Your task to perform on an android device: check android version Image 0: 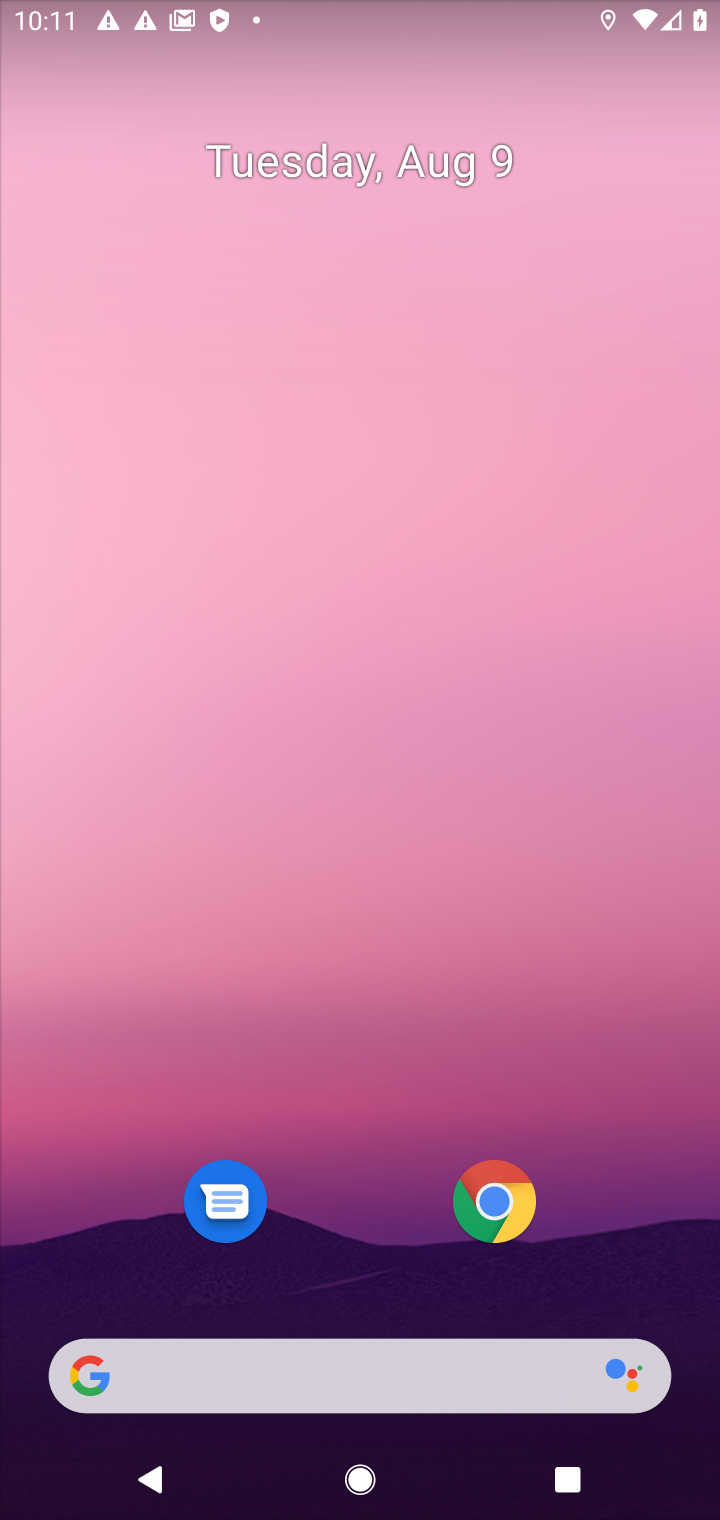
Step 0: drag from (536, 283) to (548, 196)
Your task to perform on an android device: check android version Image 1: 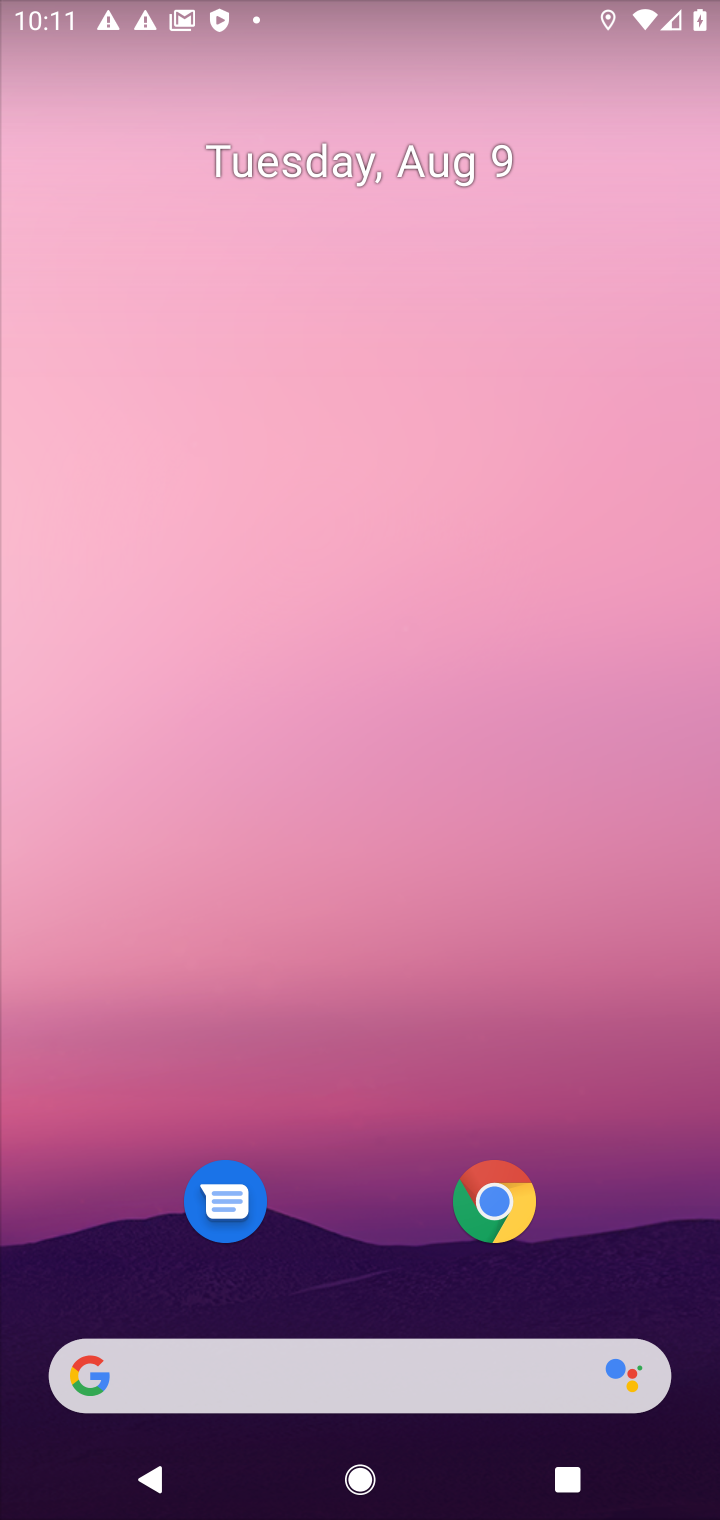
Step 1: drag from (360, 1061) to (407, 9)
Your task to perform on an android device: check android version Image 2: 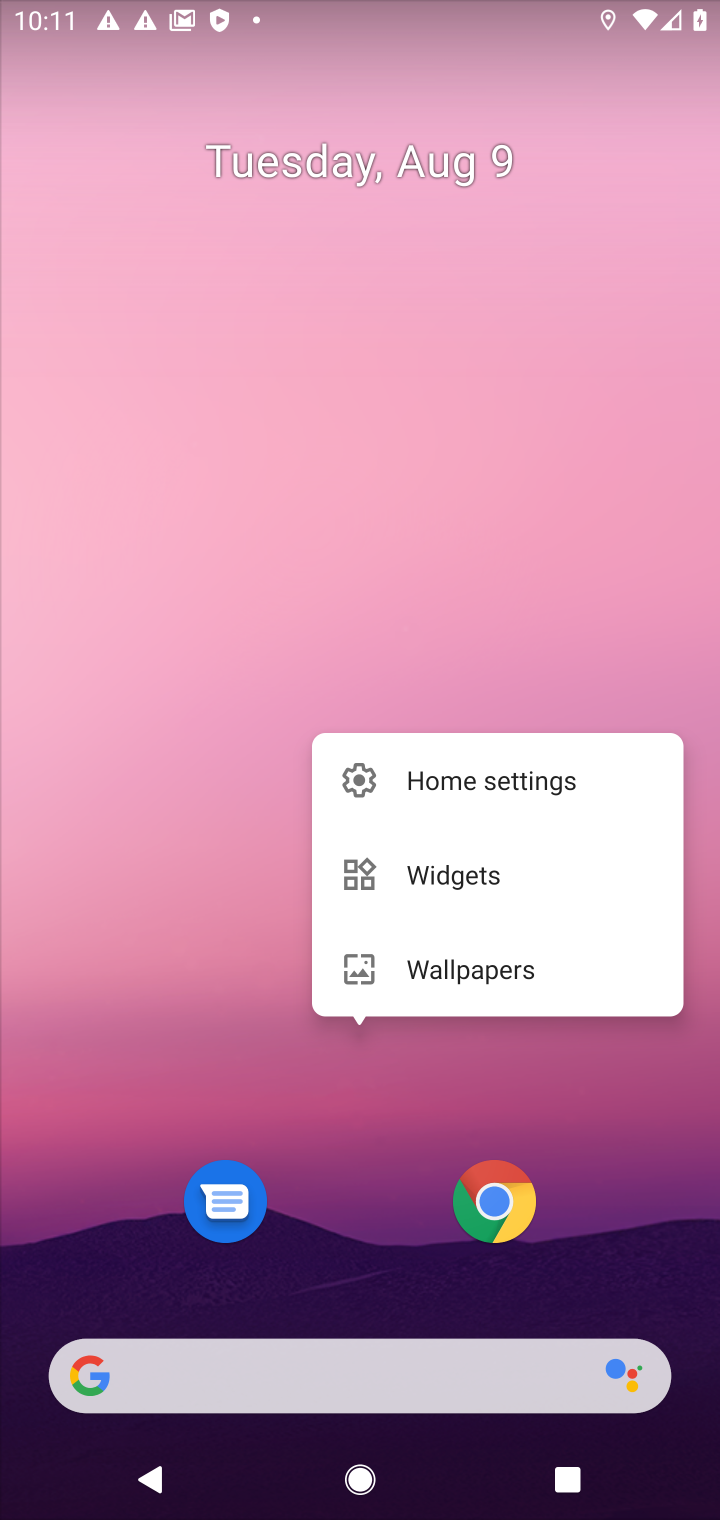
Step 2: click (255, 788)
Your task to perform on an android device: check android version Image 3: 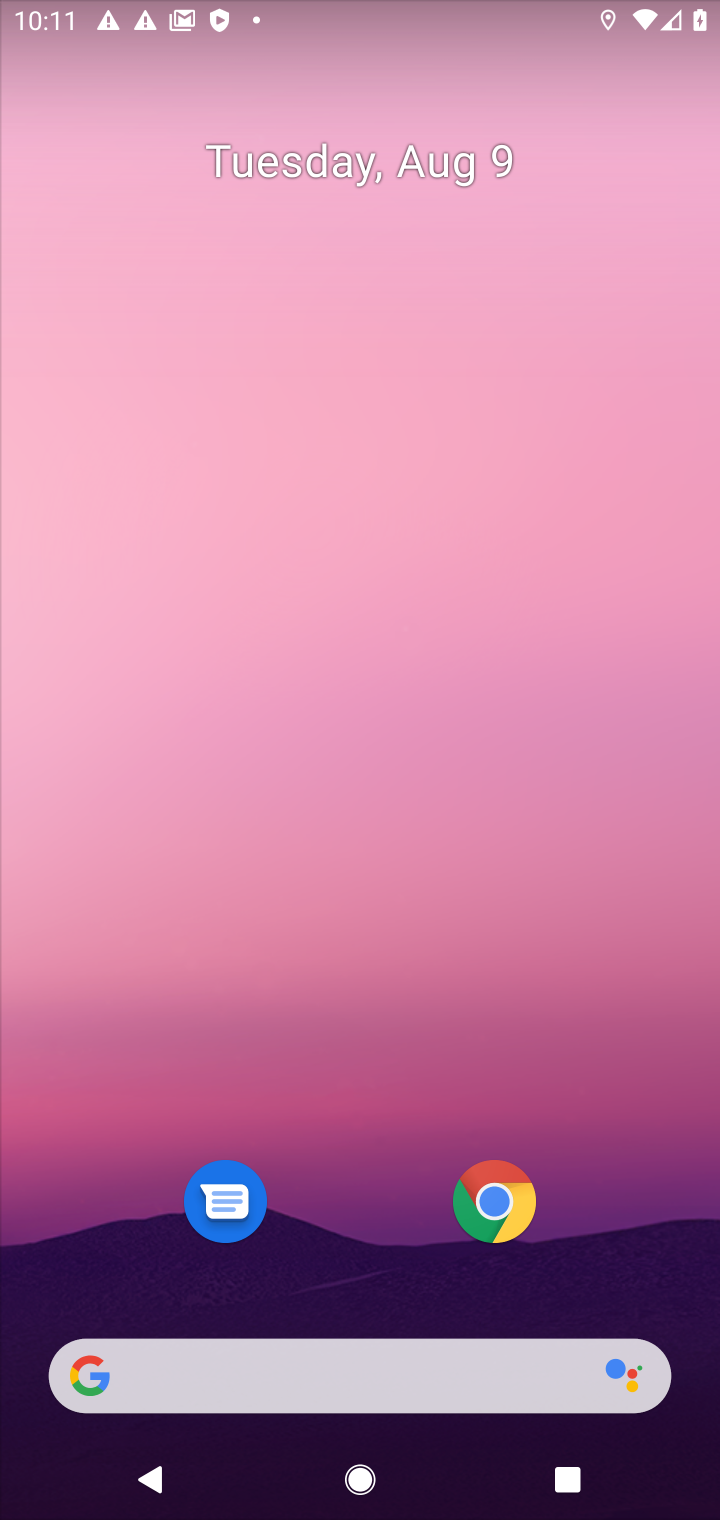
Step 3: click (255, 788)
Your task to perform on an android device: check android version Image 4: 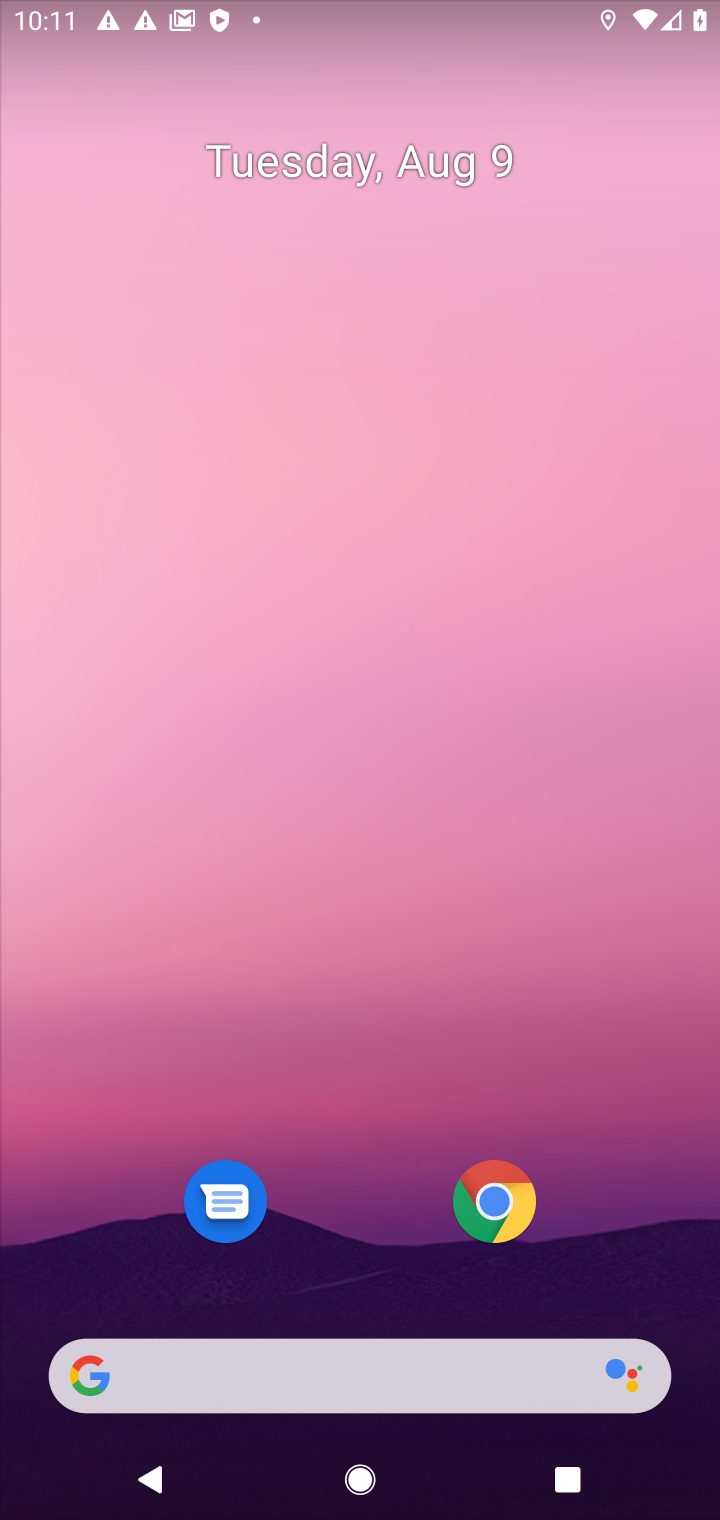
Step 4: drag from (366, 1081) to (382, 237)
Your task to perform on an android device: check android version Image 5: 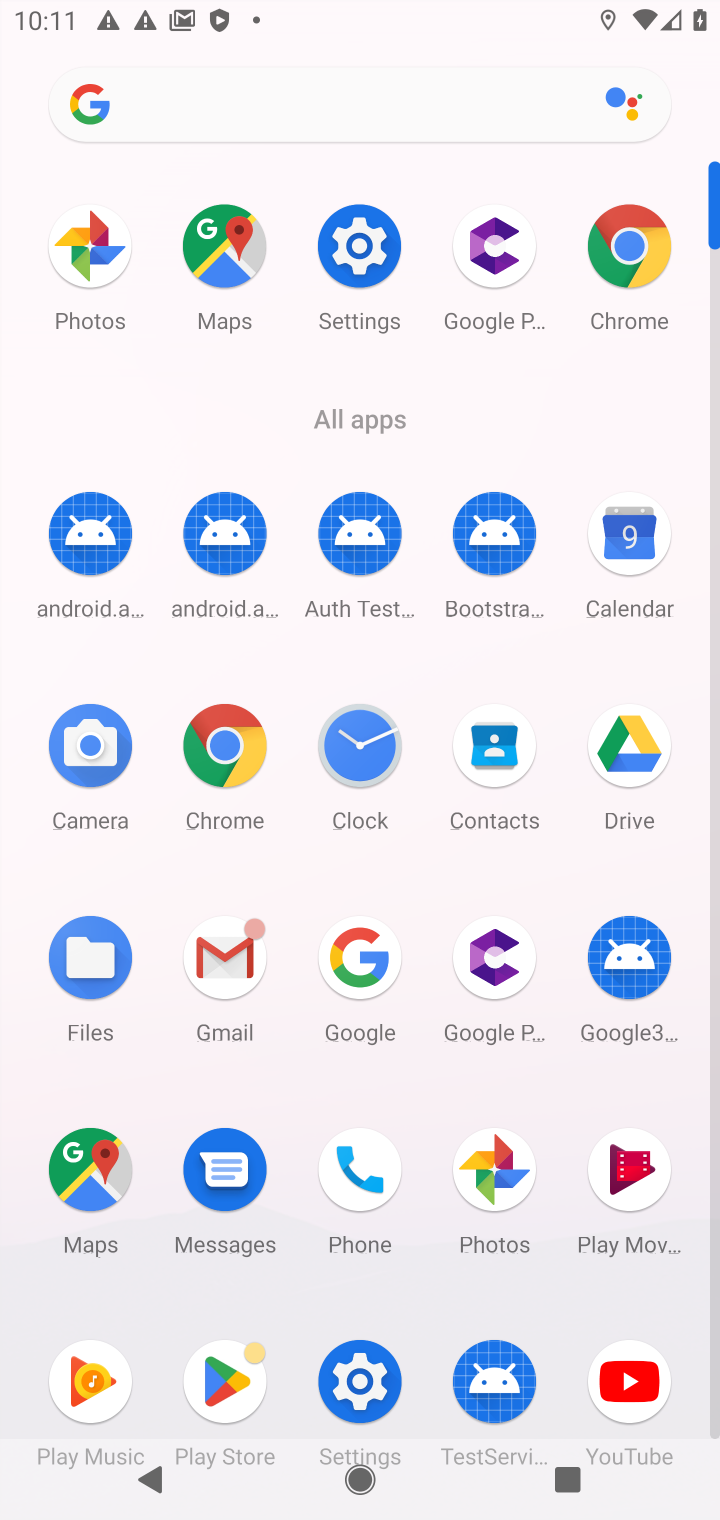
Step 5: click (363, 1371)
Your task to perform on an android device: check android version Image 6: 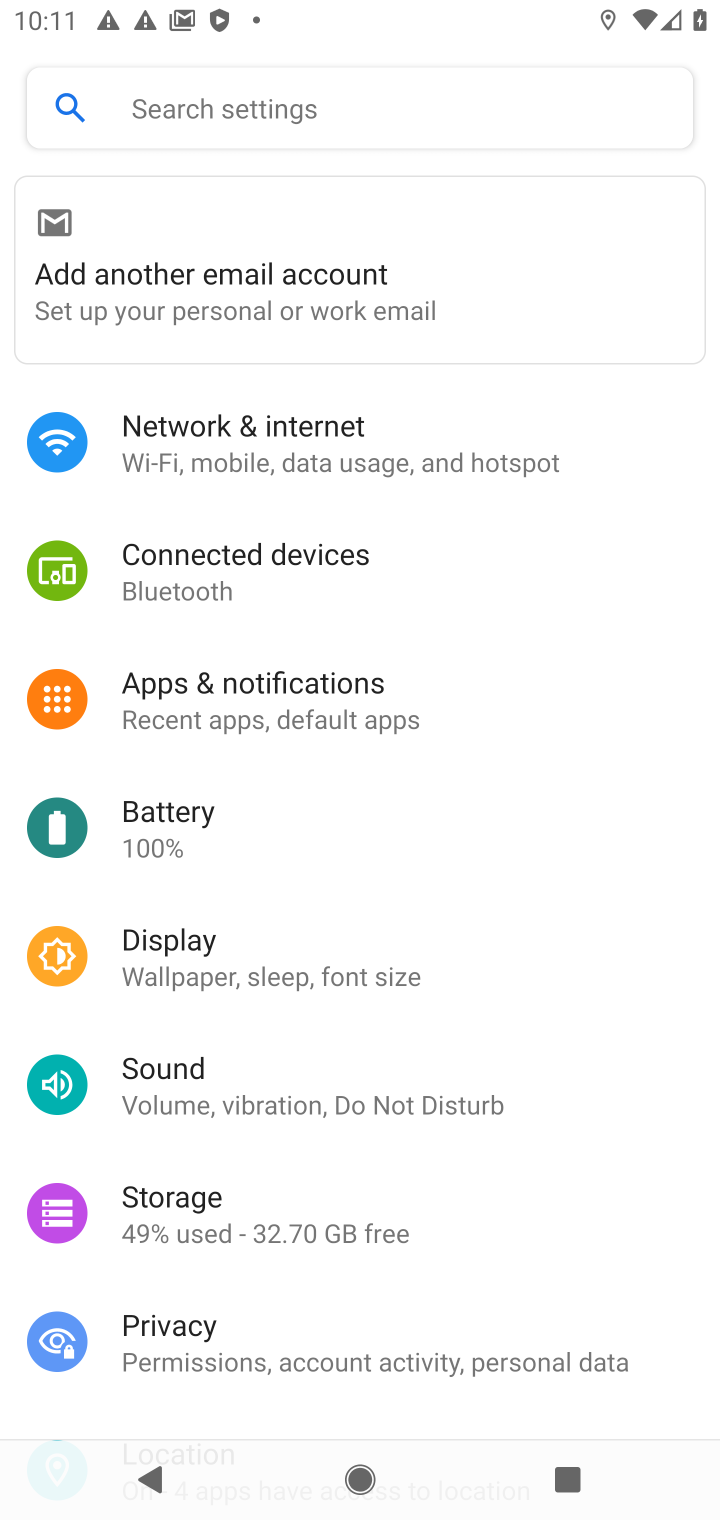
Step 6: task complete